Your task to perform on an android device: Open calendar and show me the first week of next month Image 0: 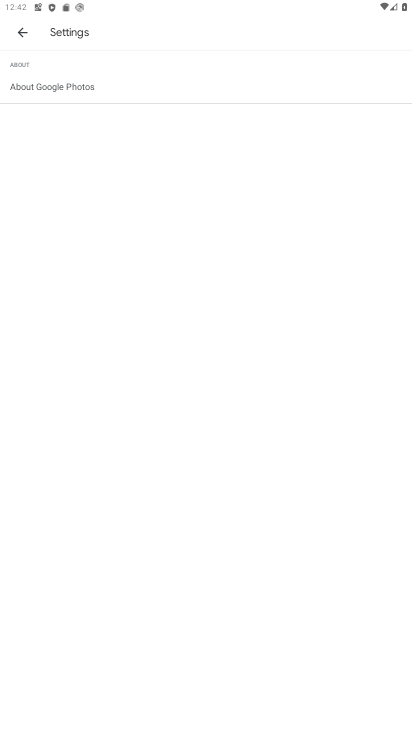
Step 0: press home button
Your task to perform on an android device: Open calendar and show me the first week of next month Image 1: 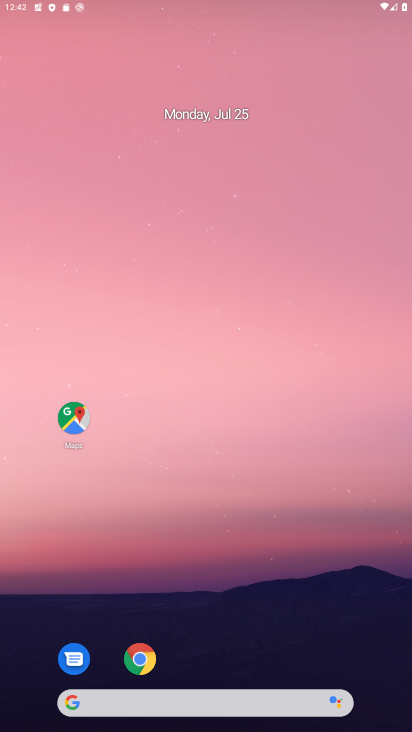
Step 1: click (326, 35)
Your task to perform on an android device: Open calendar and show me the first week of next month Image 2: 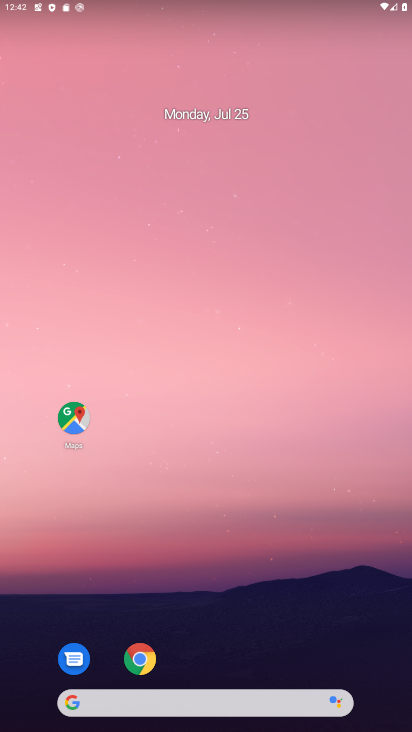
Step 2: drag from (248, 654) to (268, 34)
Your task to perform on an android device: Open calendar and show me the first week of next month Image 3: 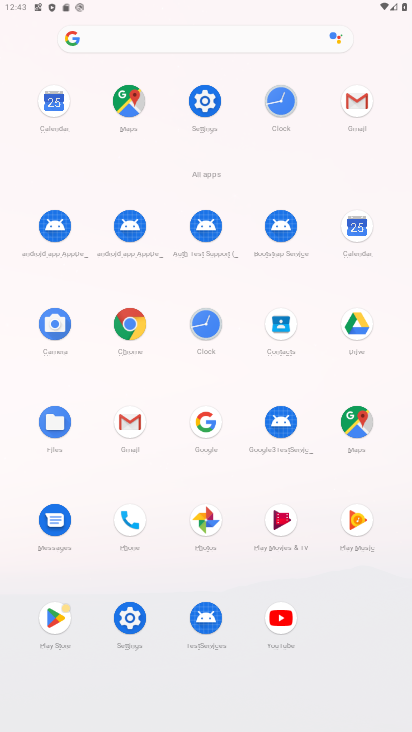
Step 3: click (368, 236)
Your task to perform on an android device: Open calendar and show me the first week of next month Image 4: 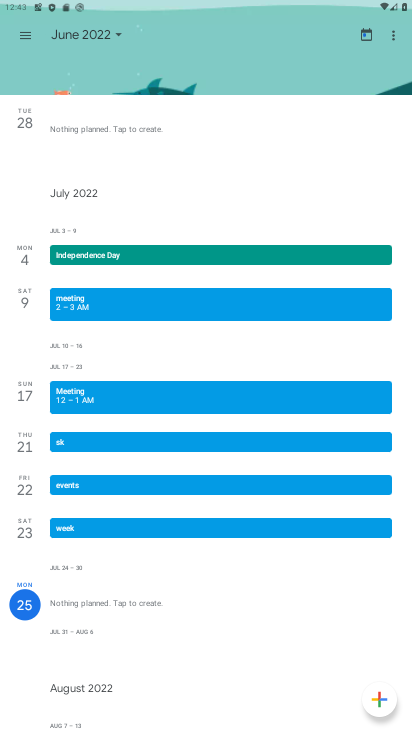
Step 4: click (87, 46)
Your task to perform on an android device: Open calendar and show me the first week of next month Image 5: 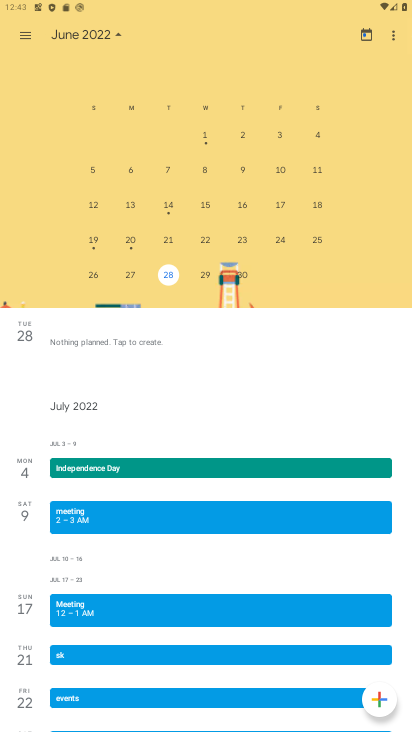
Step 5: drag from (276, 173) to (14, 308)
Your task to perform on an android device: Open calendar and show me the first week of next month Image 6: 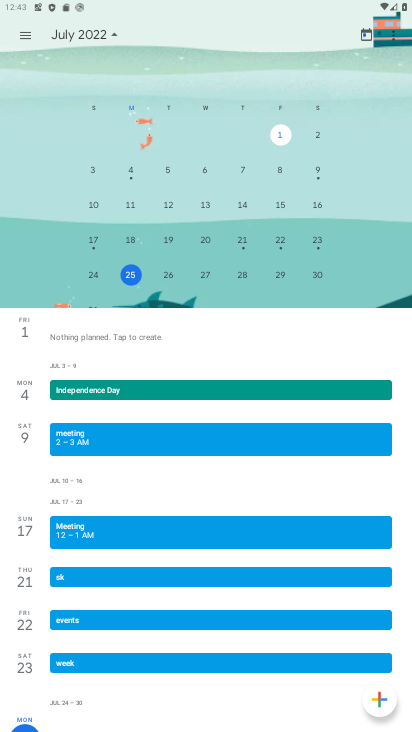
Step 6: click (239, 167)
Your task to perform on an android device: Open calendar and show me the first week of next month Image 7: 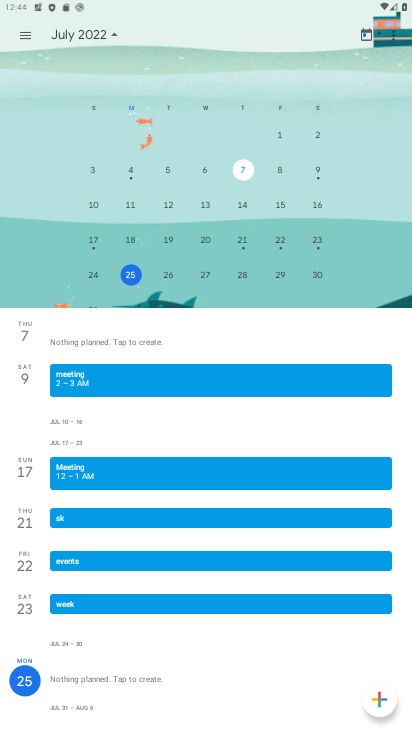
Step 7: task complete